Your task to perform on an android device: check data usage Image 0: 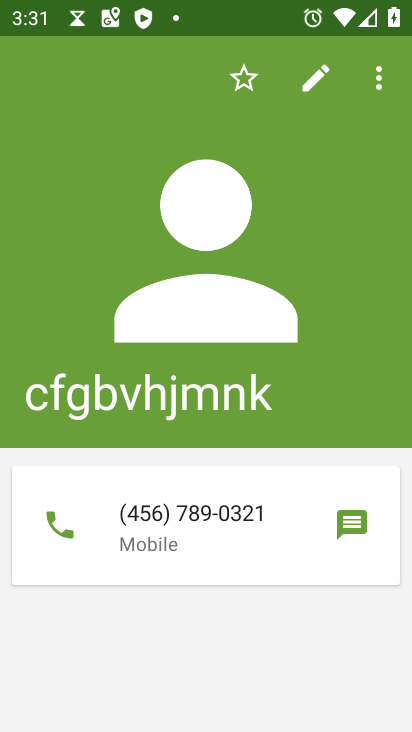
Step 0: press home button
Your task to perform on an android device: check data usage Image 1: 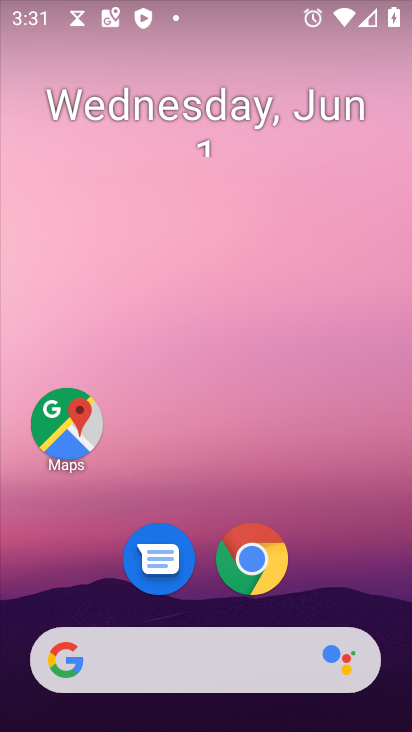
Step 1: drag from (343, 605) to (341, 43)
Your task to perform on an android device: check data usage Image 2: 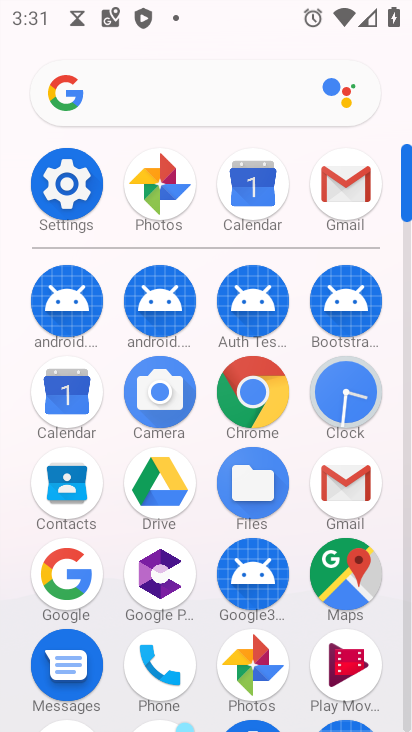
Step 2: click (59, 184)
Your task to perform on an android device: check data usage Image 3: 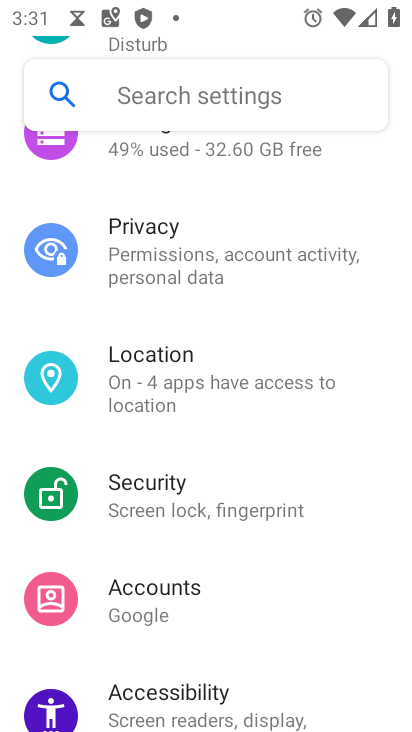
Step 3: drag from (145, 234) to (193, 355)
Your task to perform on an android device: check data usage Image 4: 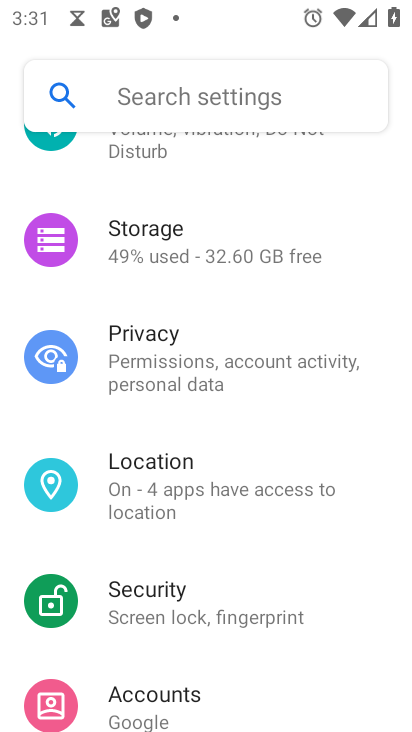
Step 4: drag from (173, 281) to (208, 363)
Your task to perform on an android device: check data usage Image 5: 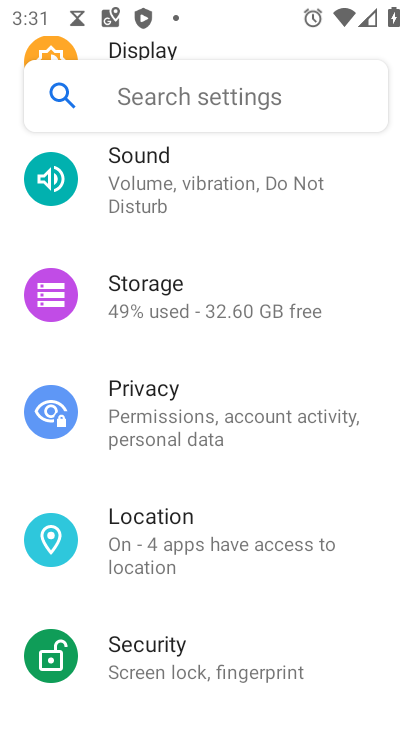
Step 5: drag from (203, 284) to (252, 370)
Your task to perform on an android device: check data usage Image 6: 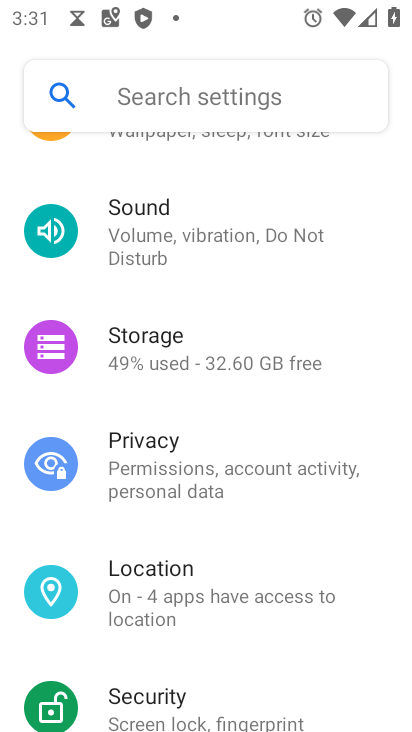
Step 6: drag from (253, 289) to (276, 387)
Your task to perform on an android device: check data usage Image 7: 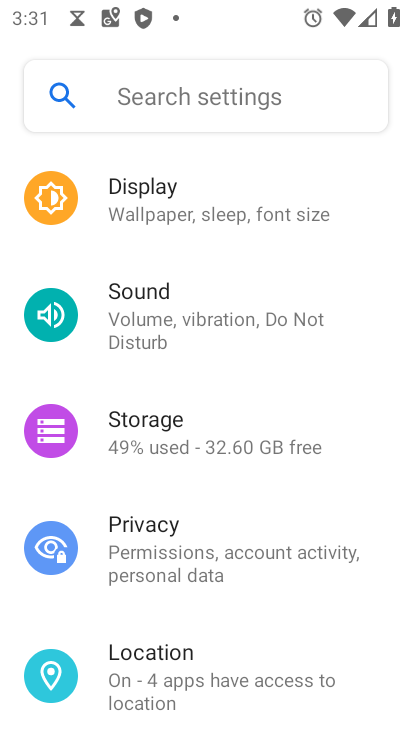
Step 7: drag from (246, 311) to (276, 401)
Your task to perform on an android device: check data usage Image 8: 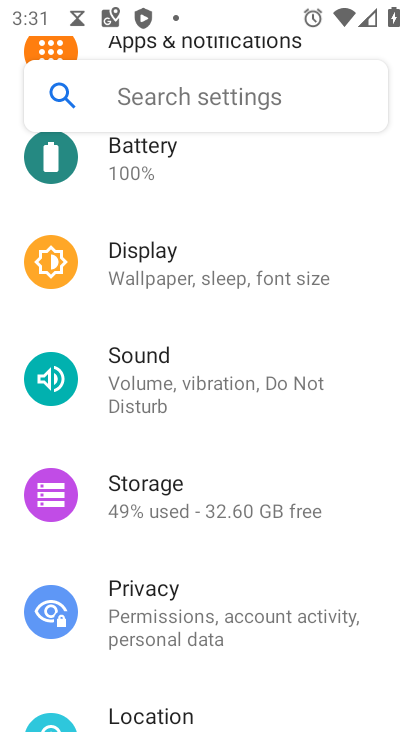
Step 8: drag from (246, 307) to (275, 391)
Your task to perform on an android device: check data usage Image 9: 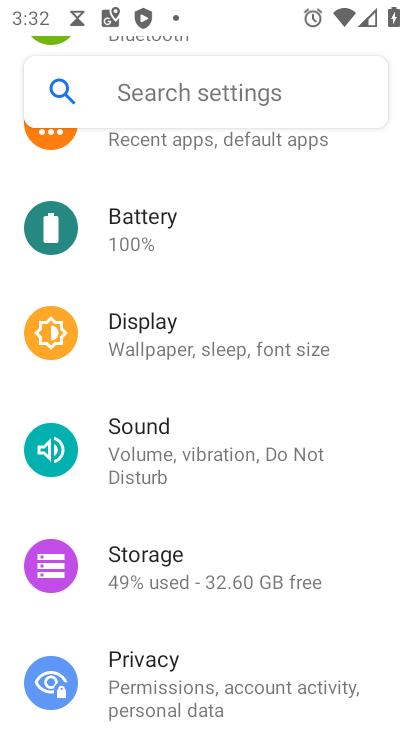
Step 9: drag from (239, 298) to (264, 391)
Your task to perform on an android device: check data usage Image 10: 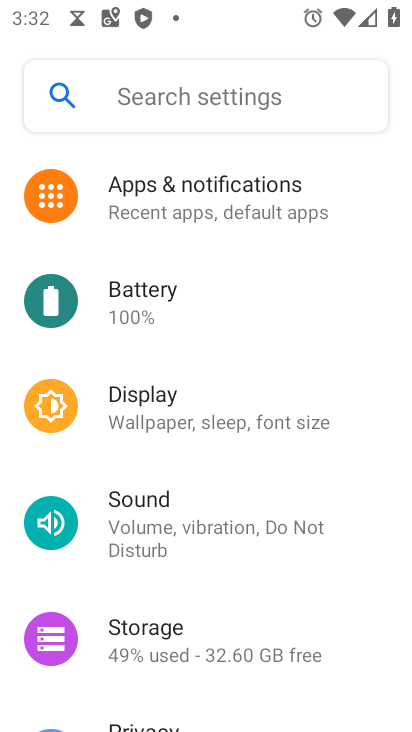
Step 10: drag from (229, 304) to (264, 391)
Your task to perform on an android device: check data usage Image 11: 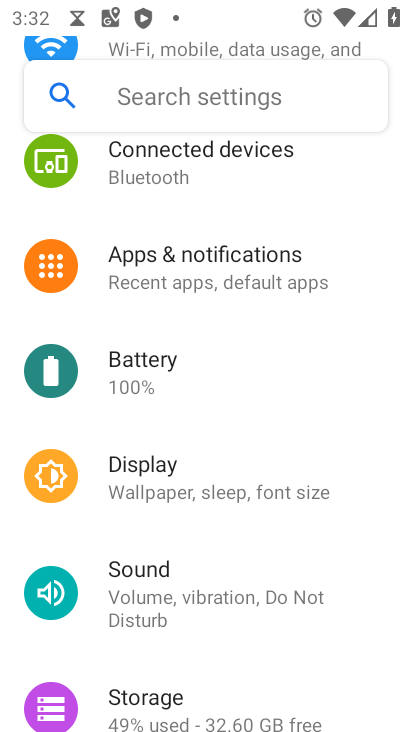
Step 11: drag from (223, 313) to (259, 400)
Your task to perform on an android device: check data usage Image 12: 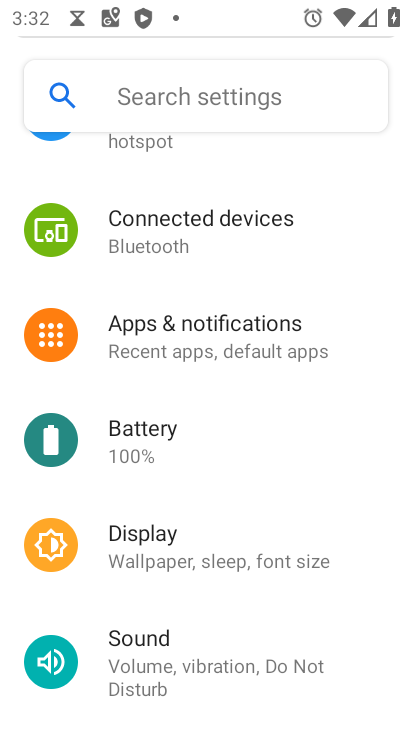
Step 12: drag from (223, 276) to (245, 417)
Your task to perform on an android device: check data usage Image 13: 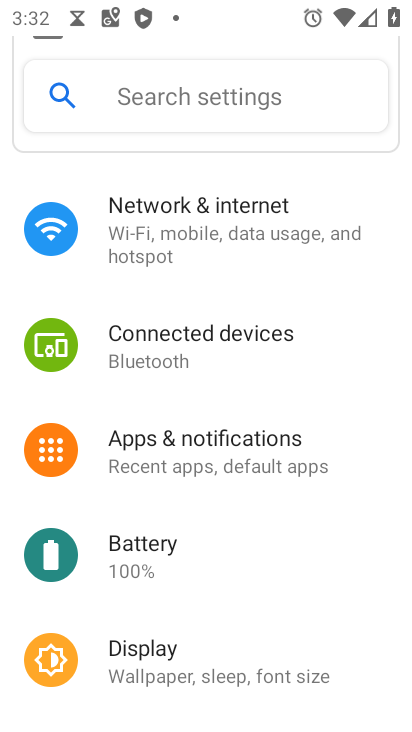
Step 13: click (216, 223)
Your task to perform on an android device: check data usage Image 14: 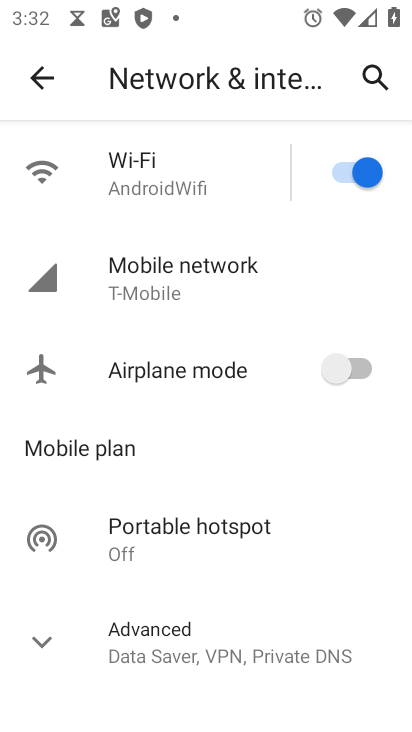
Step 14: click (138, 661)
Your task to perform on an android device: check data usage Image 15: 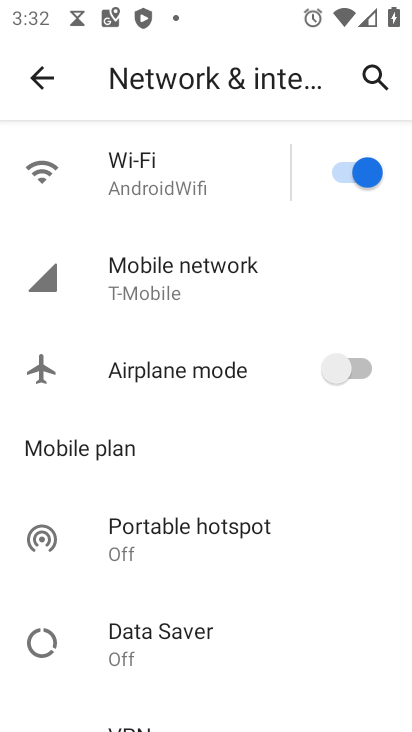
Step 15: click (183, 255)
Your task to perform on an android device: check data usage Image 16: 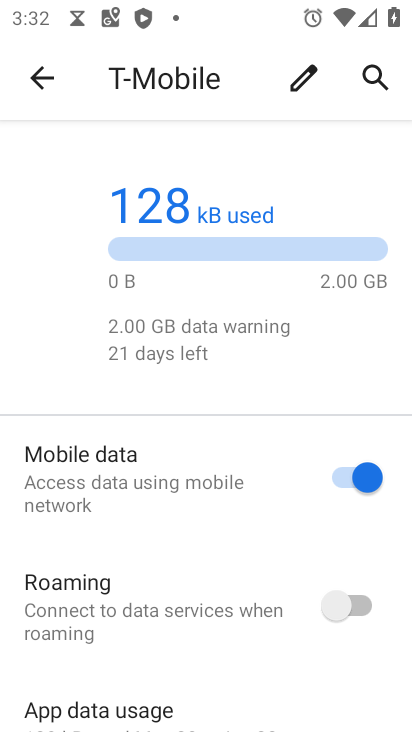
Step 16: click (207, 710)
Your task to perform on an android device: check data usage Image 17: 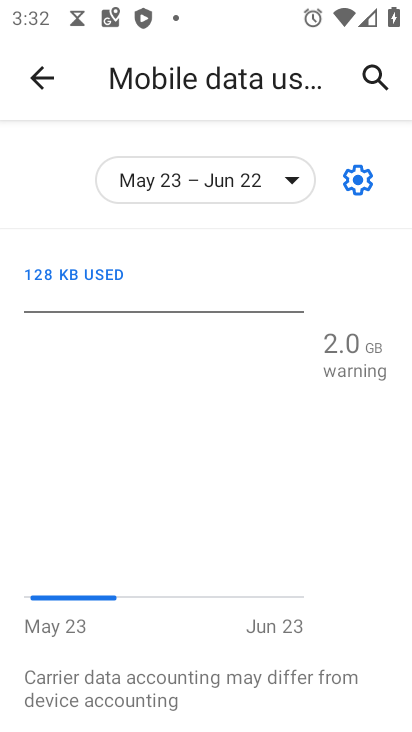
Step 17: task complete